Your task to perform on an android device: turn off location history Image 0: 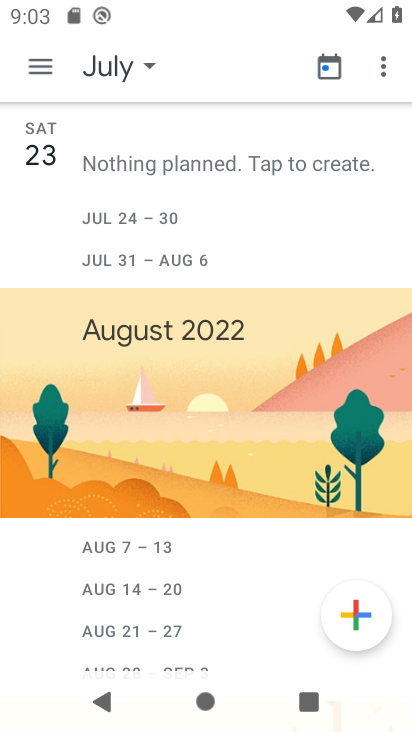
Step 0: press home button
Your task to perform on an android device: turn off location history Image 1: 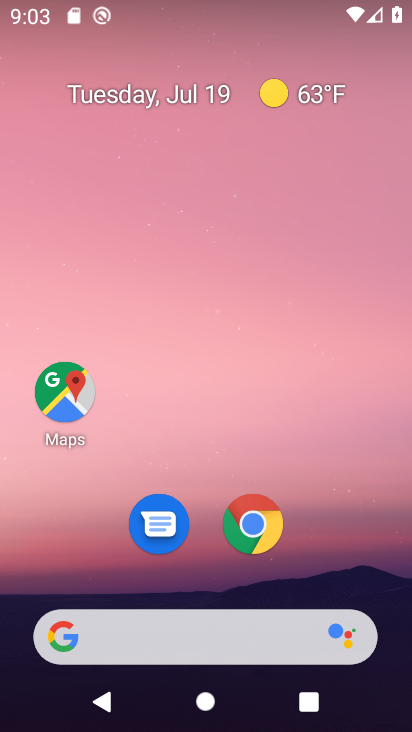
Step 1: click (67, 396)
Your task to perform on an android device: turn off location history Image 2: 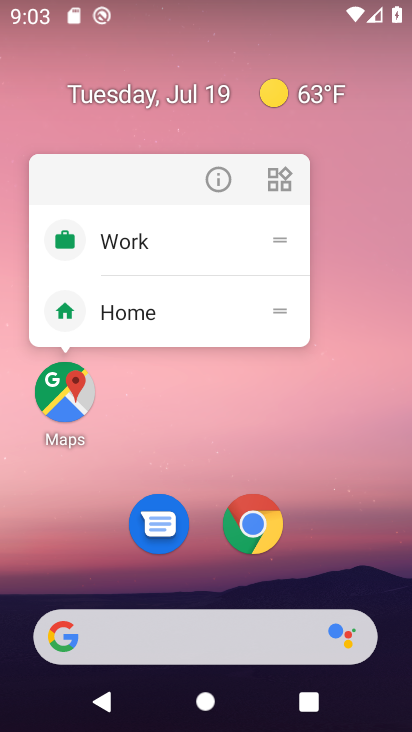
Step 2: click (58, 392)
Your task to perform on an android device: turn off location history Image 3: 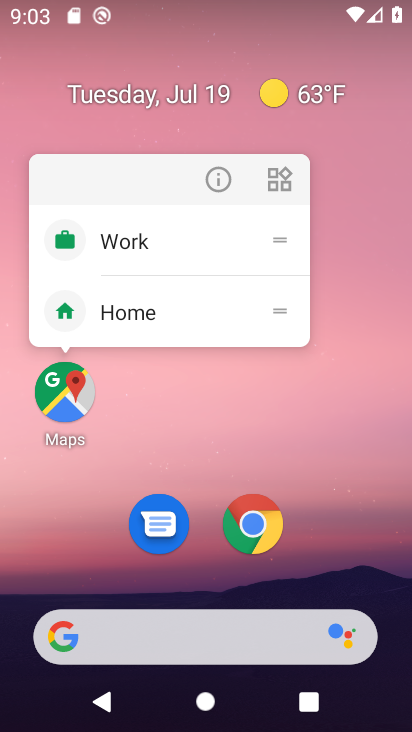
Step 3: click (73, 405)
Your task to perform on an android device: turn off location history Image 4: 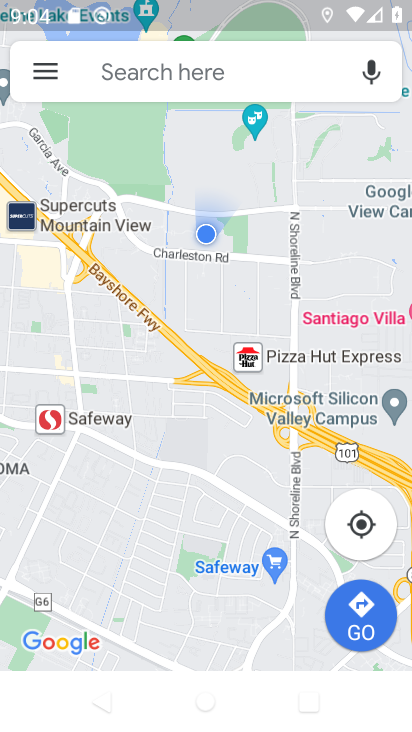
Step 4: click (45, 79)
Your task to perform on an android device: turn off location history Image 5: 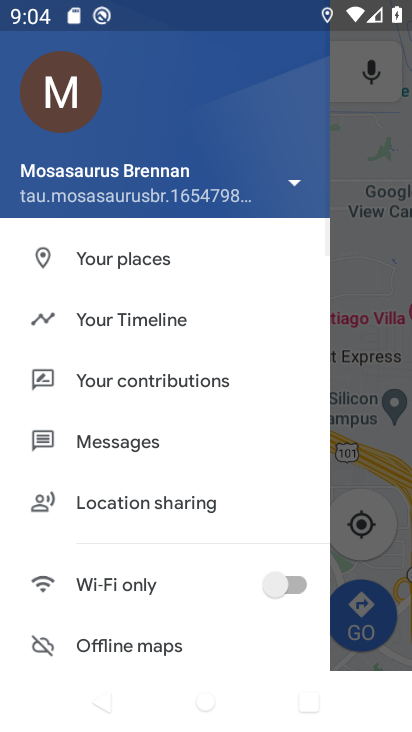
Step 5: click (148, 319)
Your task to perform on an android device: turn off location history Image 6: 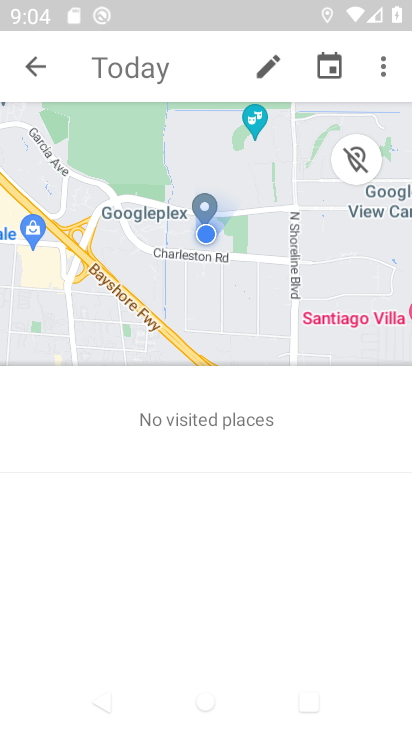
Step 6: click (384, 62)
Your task to perform on an android device: turn off location history Image 7: 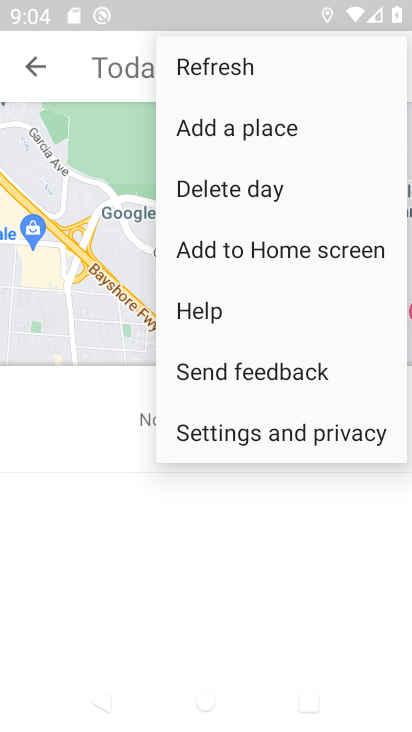
Step 7: click (246, 440)
Your task to perform on an android device: turn off location history Image 8: 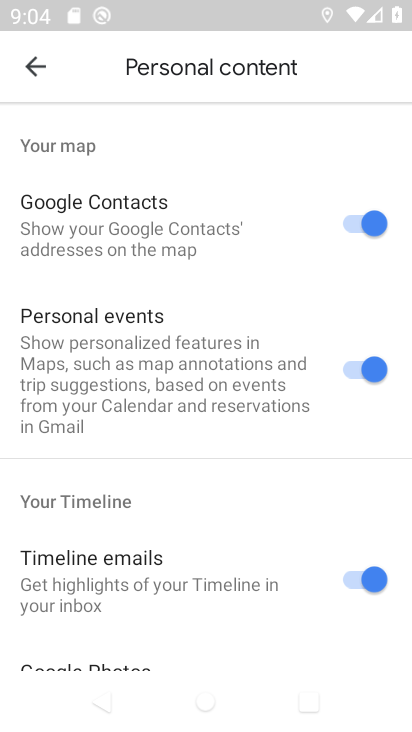
Step 8: drag from (154, 615) to (291, 128)
Your task to perform on an android device: turn off location history Image 9: 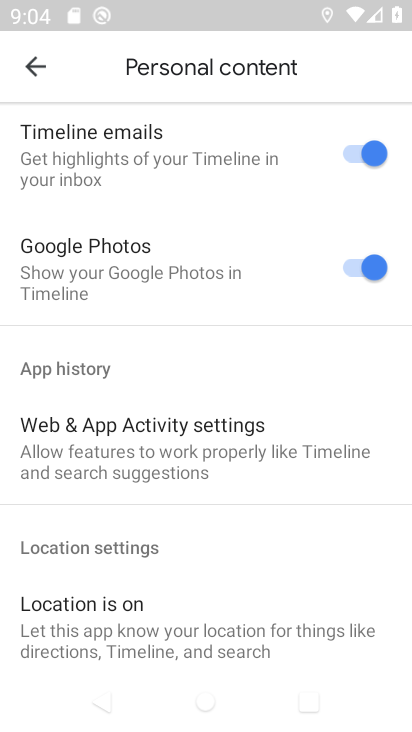
Step 9: drag from (177, 484) to (276, 61)
Your task to perform on an android device: turn off location history Image 10: 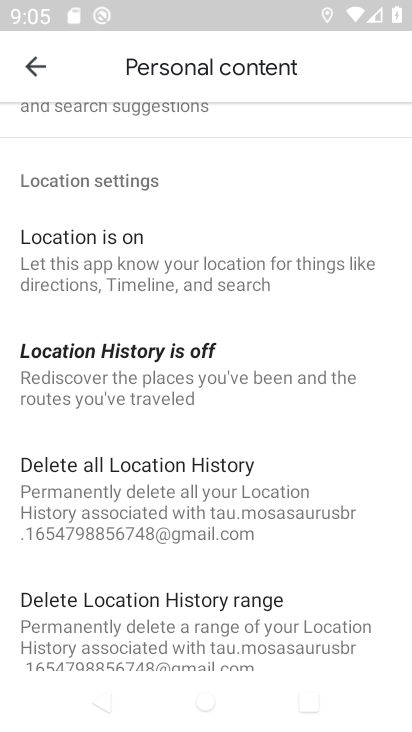
Step 10: click (149, 367)
Your task to perform on an android device: turn off location history Image 11: 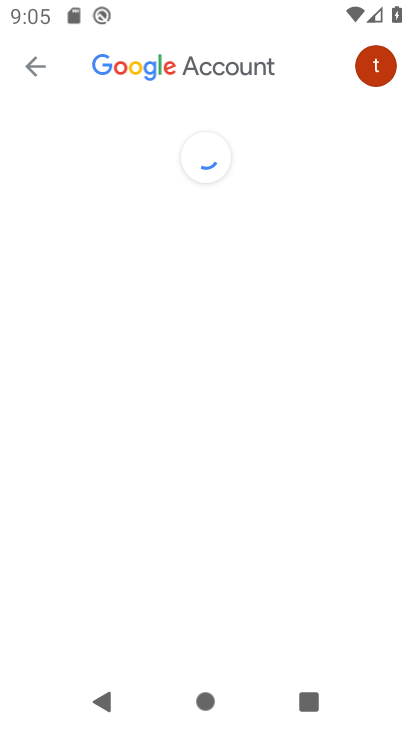
Step 11: drag from (288, 600) to (320, 71)
Your task to perform on an android device: turn off location history Image 12: 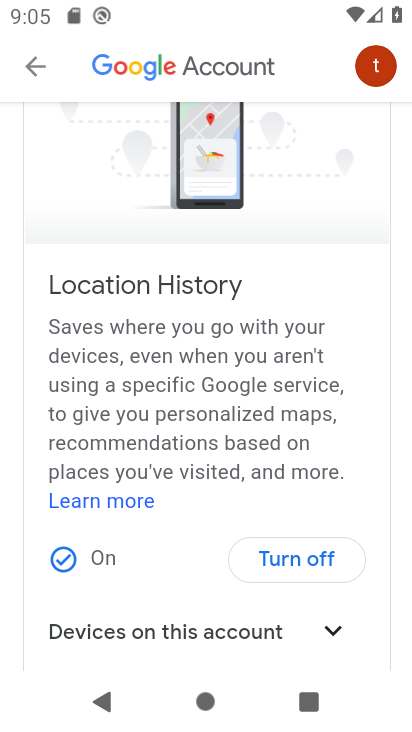
Step 12: click (303, 563)
Your task to perform on an android device: turn off location history Image 13: 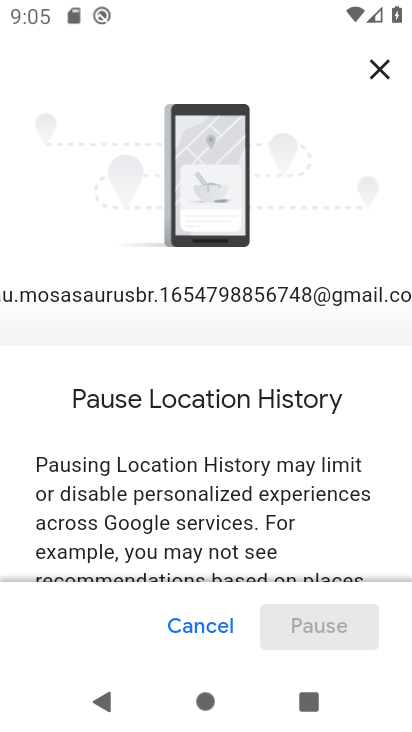
Step 13: drag from (281, 542) to (319, 100)
Your task to perform on an android device: turn off location history Image 14: 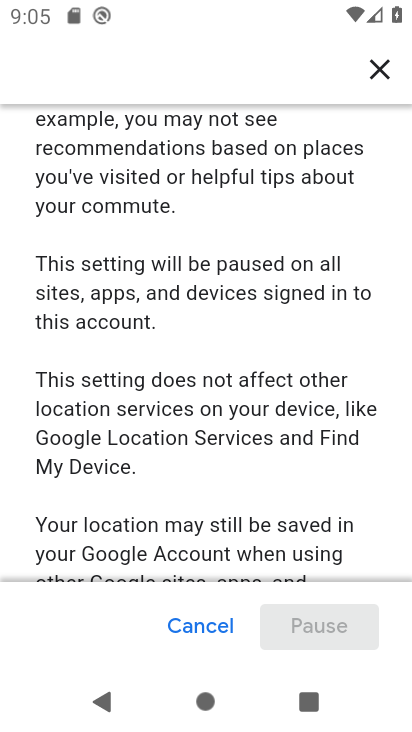
Step 14: drag from (276, 494) to (353, 114)
Your task to perform on an android device: turn off location history Image 15: 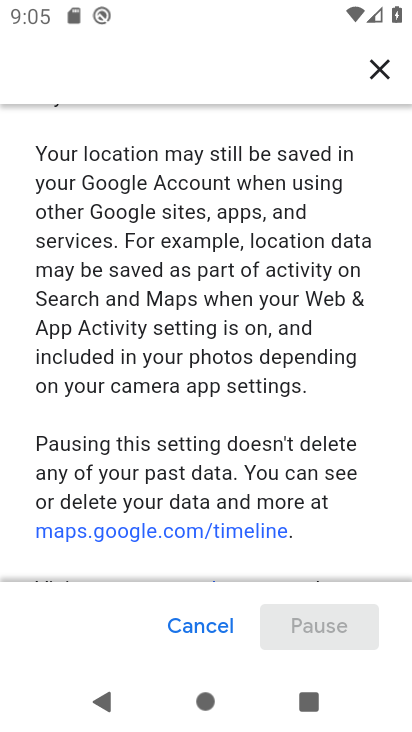
Step 15: drag from (331, 557) to (317, 60)
Your task to perform on an android device: turn off location history Image 16: 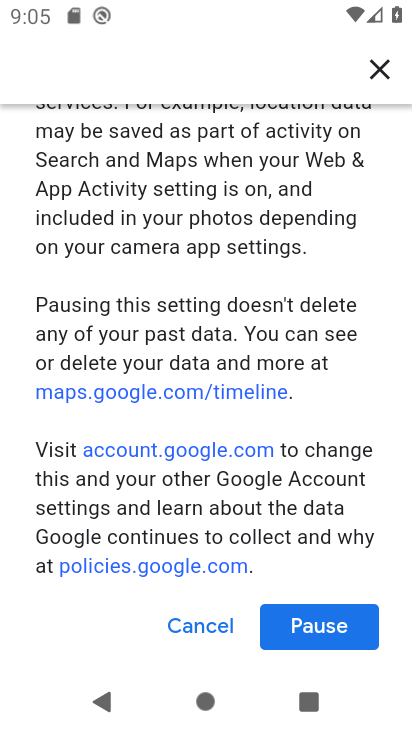
Step 16: click (325, 625)
Your task to perform on an android device: turn off location history Image 17: 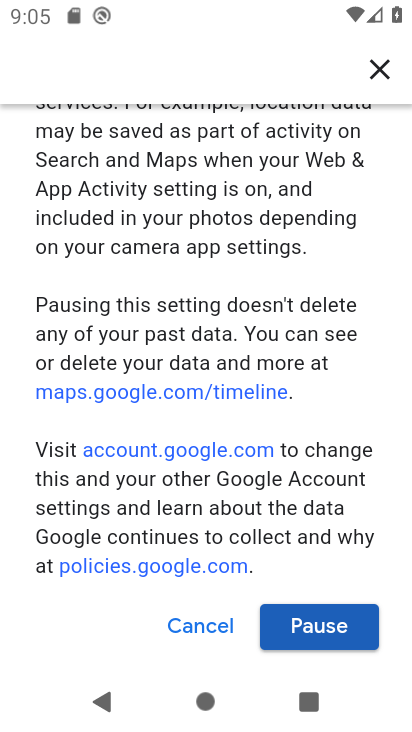
Step 17: click (314, 624)
Your task to perform on an android device: turn off location history Image 18: 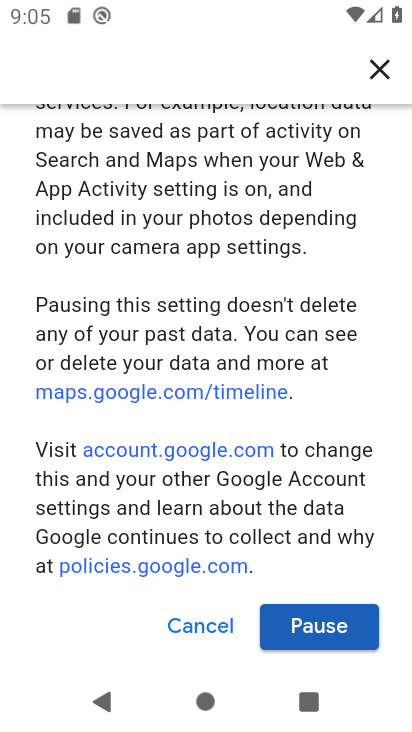
Step 18: click (324, 624)
Your task to perform on an android device: turn off location history Image 19: 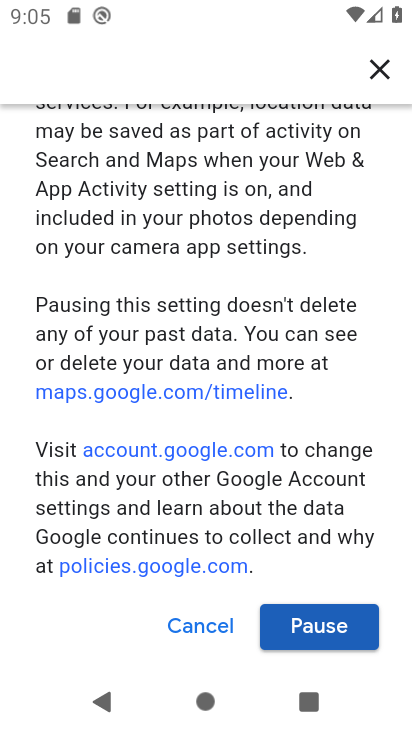
Step 19: click (310, 629)
Your task to perform on an android device: turn off location history Image 20: 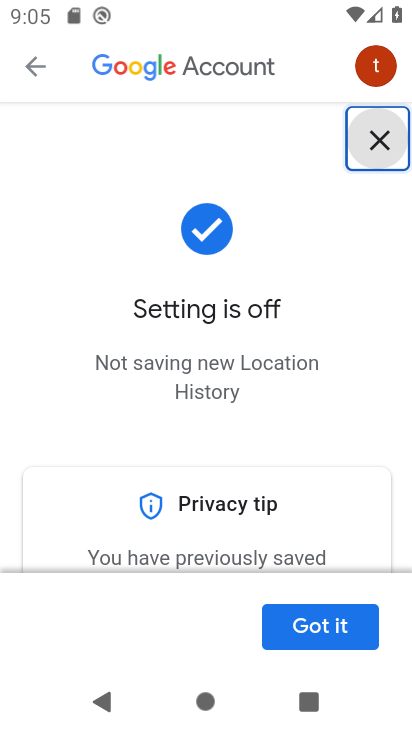
Step 20: click (321, 620)
Your task to perform on an android device: turn off location history Image 21: 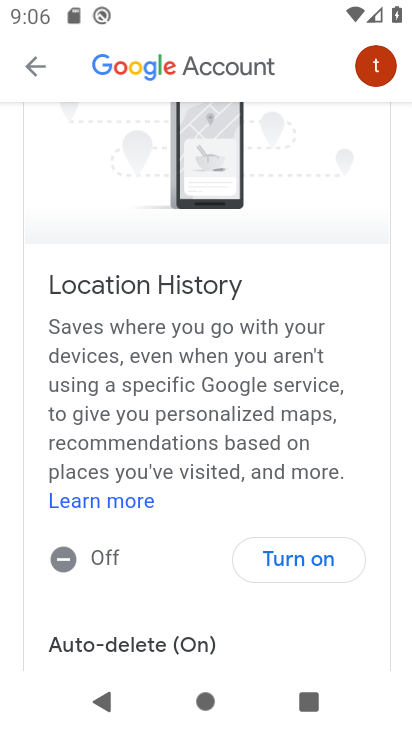
Step 21: task complete